Your task to perform on an android device: move a message to another label in the gmail app Image 0: 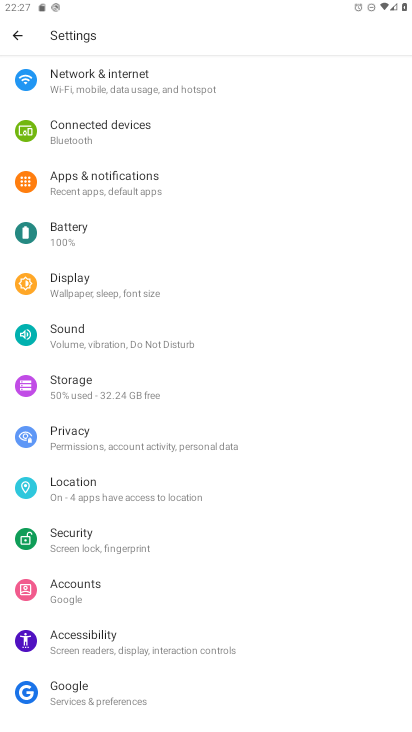
Step 0: press home button
Your task to perform on an android device: move a message to another label in the gmail app Image 1: 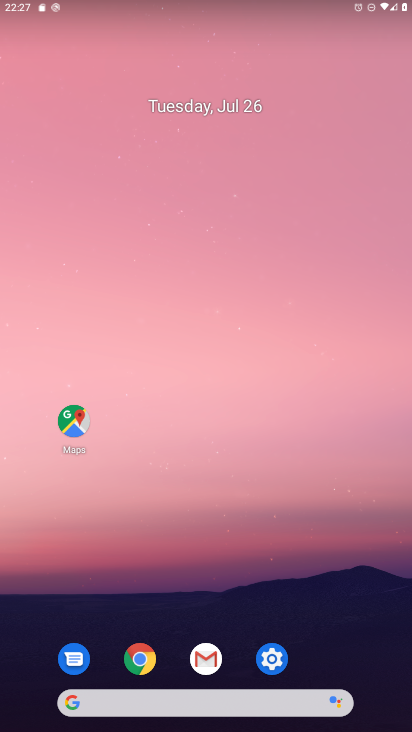
Step 1: click (186, 655)
Your task to perform on an android device: move a message to another label in the gmail app Image 2: 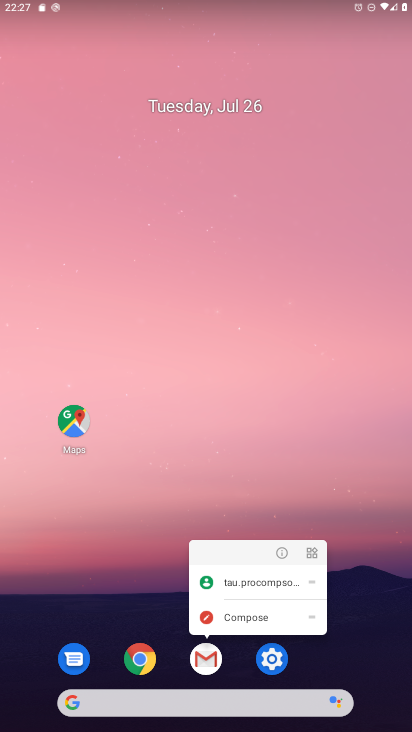
Step 2: click (206, 660)
Your task to perform on an android device: move a message to another label in the gmail app Image 3: 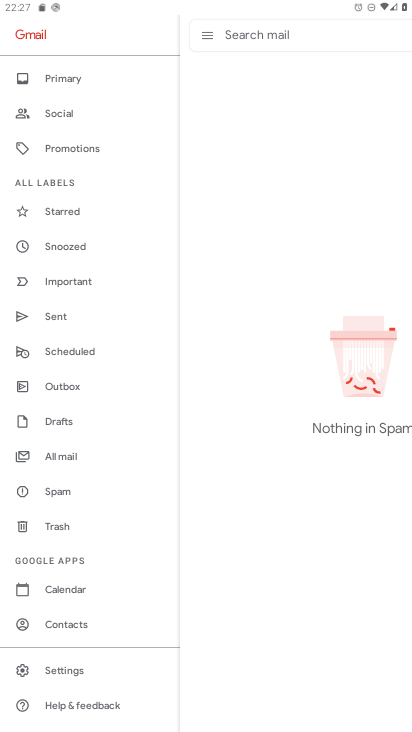
Step 3: click (66, 672)
Your task to perform on an android device: move a message to another label in the gmail app Image 4: 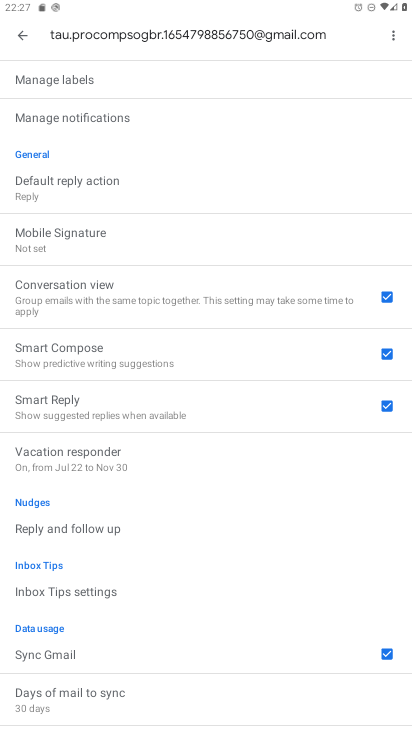
Step 4: click (57, 78)
Your task to perform on an android device: move a message to another label in the gmail app Image 5: 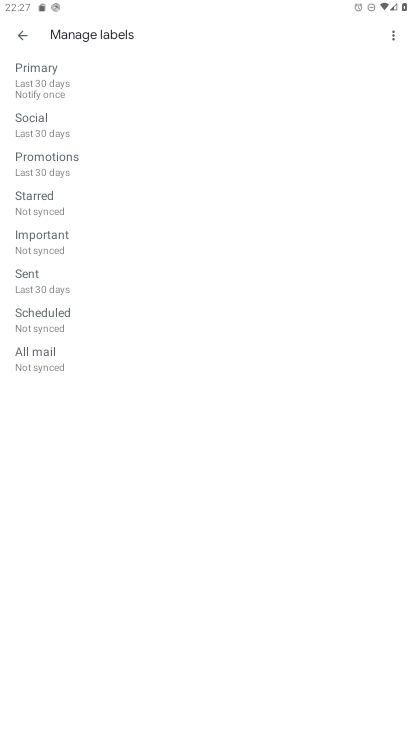
Step 5: click (67, 79)
Your task to perform on an android device: move a message to another label in the gmail app Image 6: 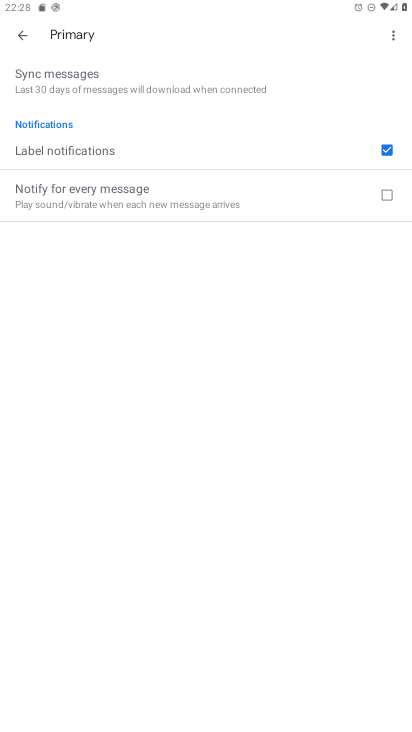
Step 6: task complete